Your task to perform on an android device: toggle javascript in the chrome app Image 0: 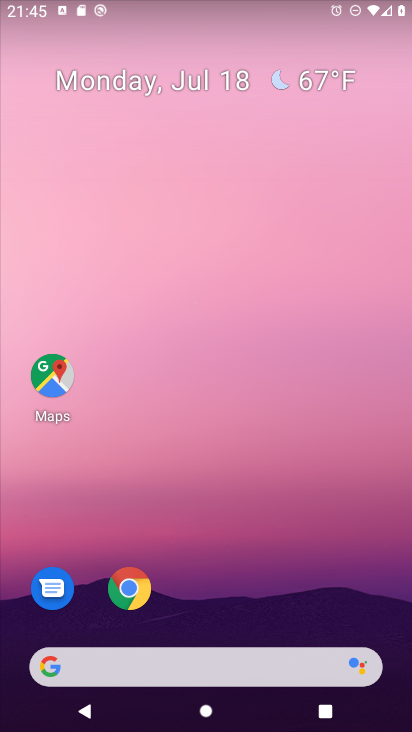
Step 0: click (130, 586)
Your task to perform on an android device: toggle javascript in the chrome app Image 1: 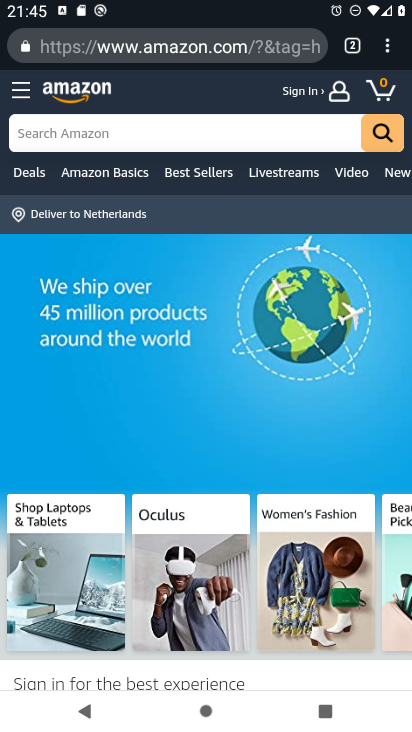
Step 1: click (388, 52)
Your task to perform on an android device: toggle javascript in the chrome app Image 2: 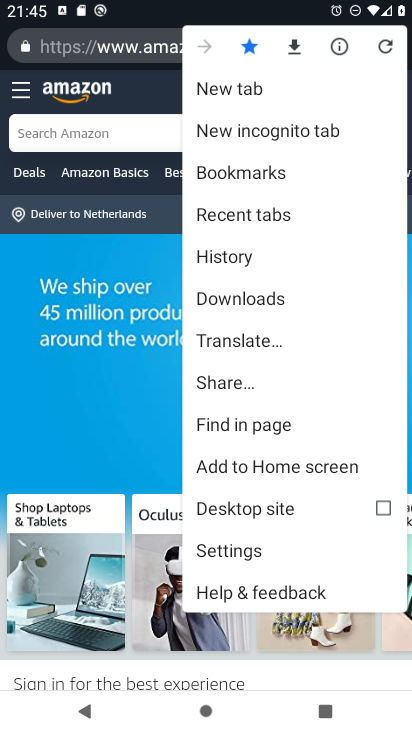
Step 2: click (239, 543)
Your task to perform on an android device: toggle javascript in the chrome app Image 3: 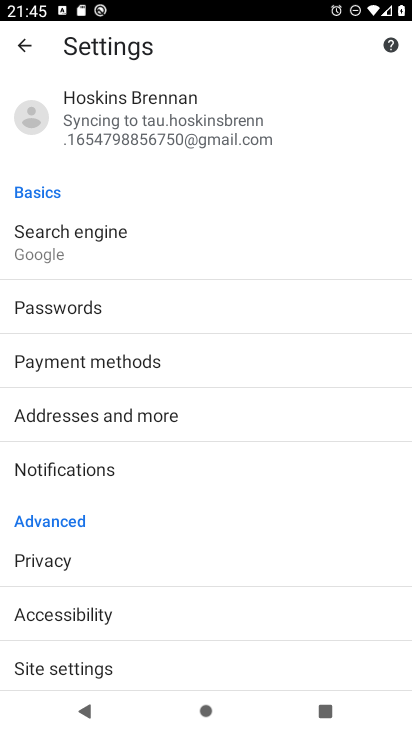
Step 3: click (74, 663)
Your task to perform on an android device: toggle javascript in the chrome app Image 4: 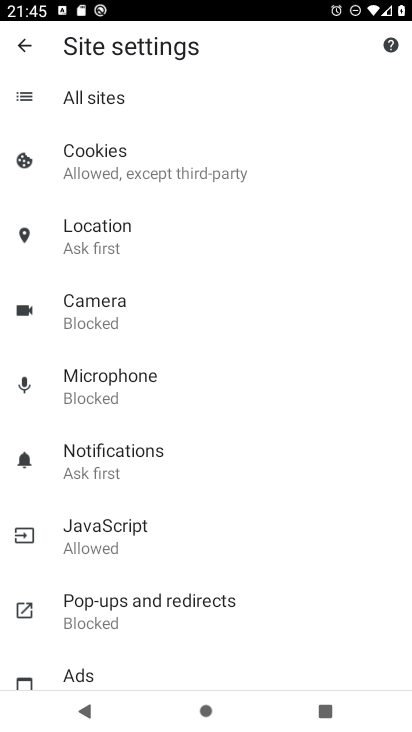
Step 4: click (104, 535)
Your task to perform on an android device: toggle javascript in the chrome app Image 5: 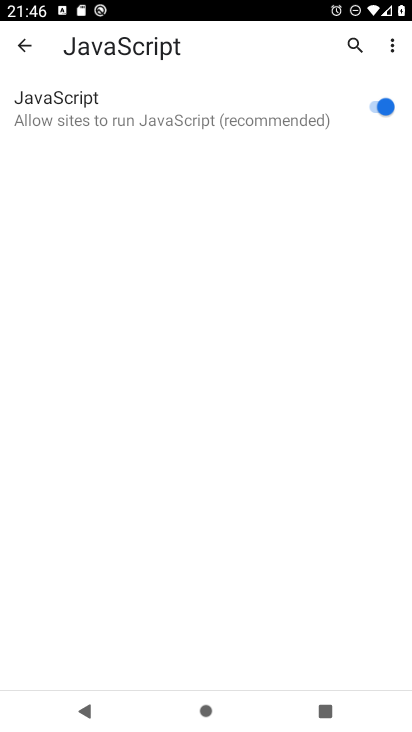
Step 5: click (369, 107)
Your task to perform on an android device: toggle javascript in the chrome app Image 6: 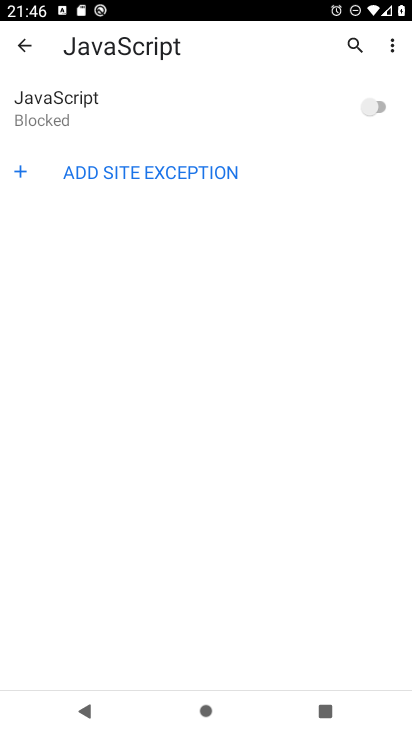
Step 6: task complete